Your task to perform on an android device: Open wifi settings Image 0: 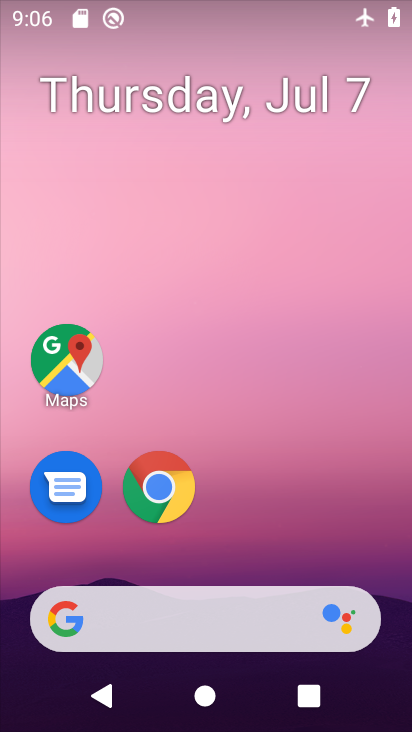
Step 0: drag from (372, 554) to (338, 95)
Your task to perform on an android device: Open wifi settings Image 1: 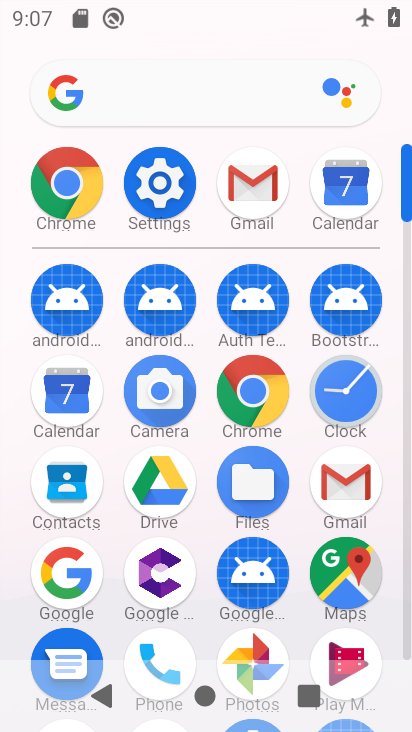
Step 1: click (152, 184)
Your task to perform on an android device: Open wifi settings Image 2: 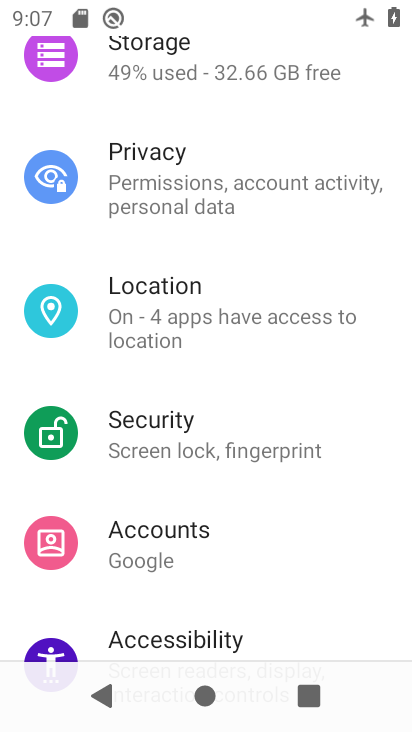
Step 2: drag from (371, 245) to (378, 368)
Your task to perform on an android device: Open wifi settings Image 3: 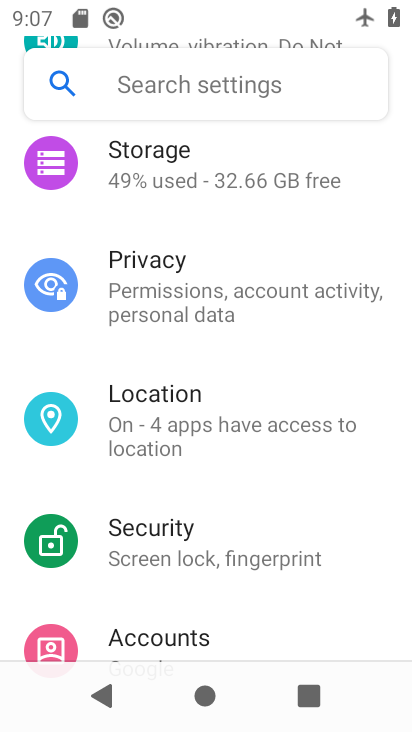
Step 3: drag from (378, 215) to (377, 356)
Your task to perform on an android device: Open wifi settings Image 4: 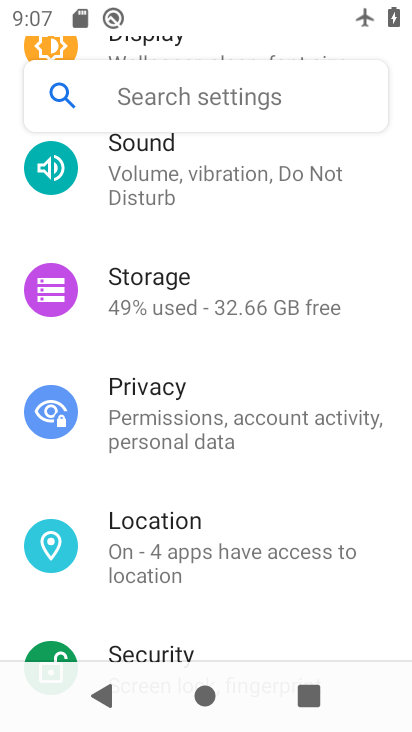
Step 4: drag from (373, 213) to (373, 316)
Your task to perform on an android device: Open wifi settings Image 5: 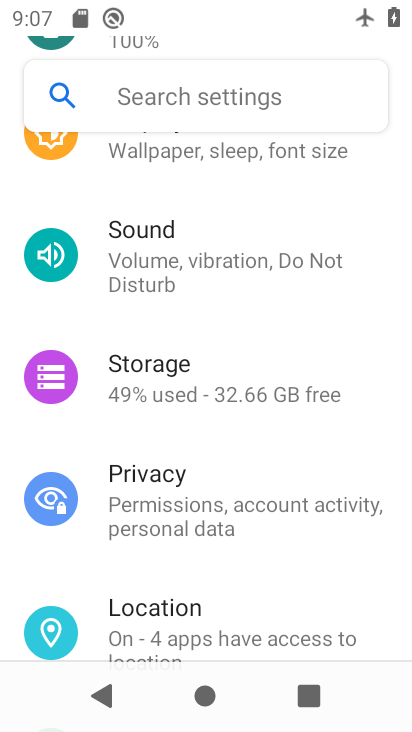
Step 5: drag from (367, 182) to (372, 277)
Your task to perform on an android device: Open wifi settings Image 6: 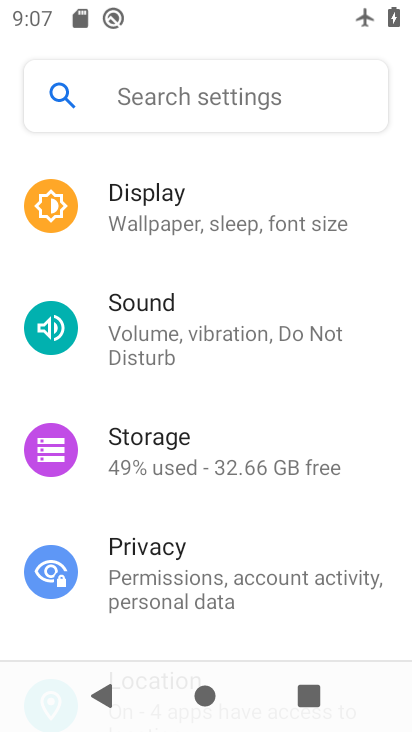
Step 6: drag from (373, 193) to (374, 282)
Your task to perform on an android device: Open wifi settings Image 7: 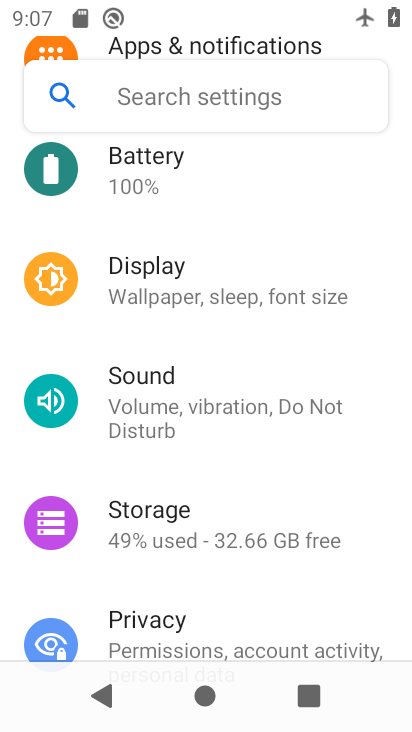
Step 7: drag from (361, 181) to (362, 264)
Your task to perform on an android device: Open wifi settings Image 8: 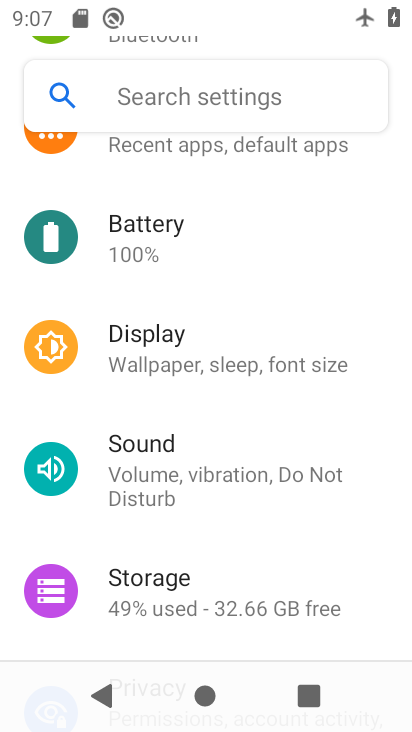
Step 8: drag from (369, 198) to (371, 294)
Your task to perform on an android device: Open wifi settings Image 9: 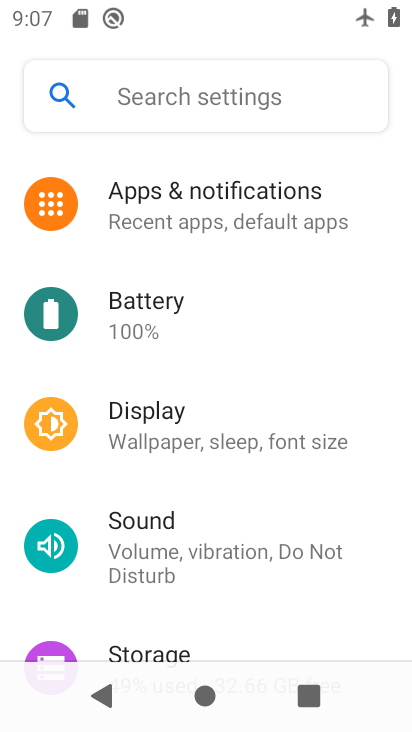
Step 9: drag from (366, 174) to (372, 269)
Your task to perform on an android device: Open wifi settings Image 10: 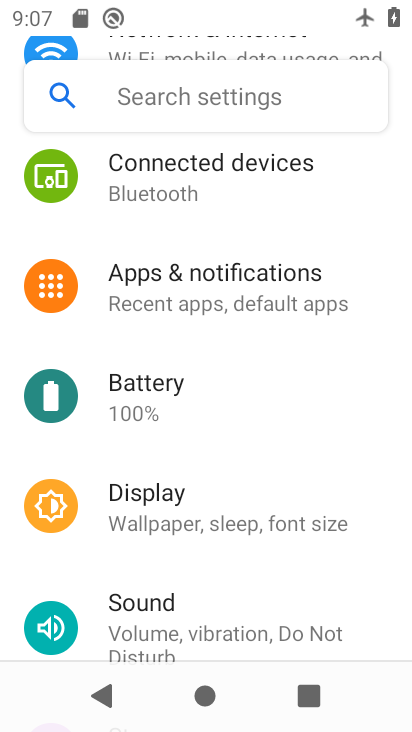
Step 10: drag from (366, 198) to (376, 295)
Your task to perform on an android device: Open wifi settings Image 11: 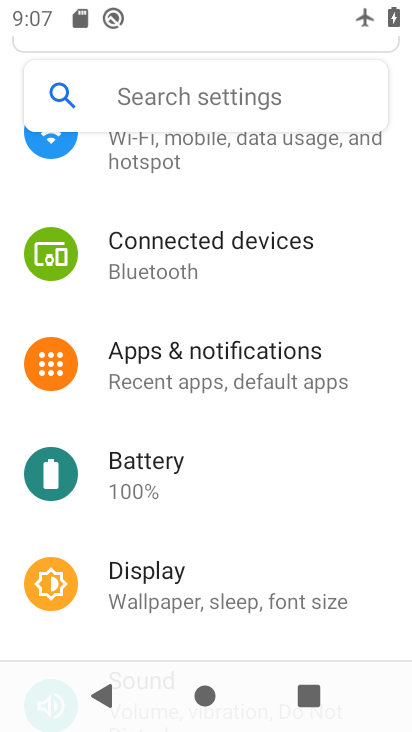
Step 11: drag from (375, 204) to (375, 305)
Your task to perform on an android device: Open wifi settings Image 12: 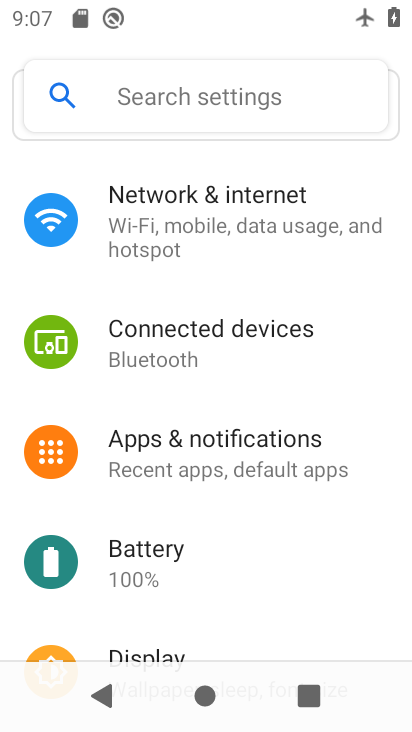
Step 12: drag from (383, 182) to (386, 390)
Your task to perform on an android device: Open wifi settings Image 13: 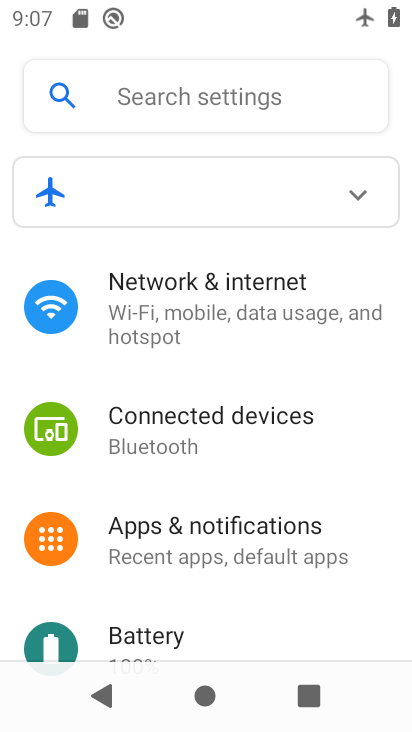
Step 13: click (297, 308)
Your task to perform on an android device: Open wifi settings Image 14: 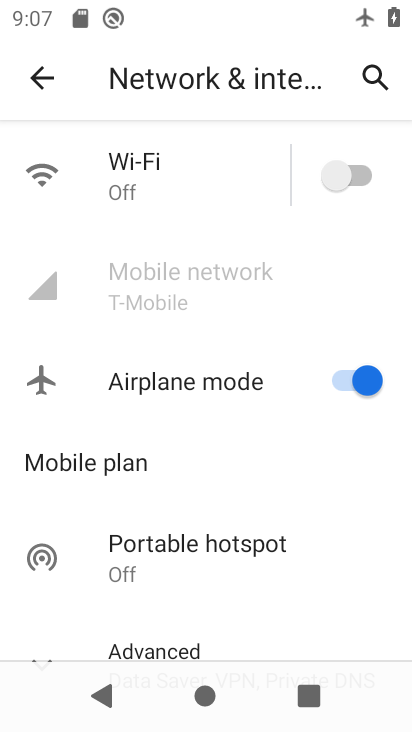
Step 14: click (144, 179)
Your task to perform on an android device: Open wifi settings Image 15: 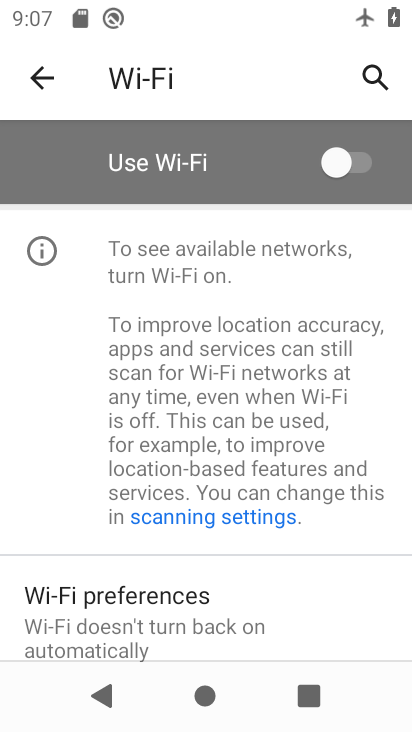
Step 15: task complete